Your task to perform on an android device: Search for sushi restaurants on Maps Image 0: 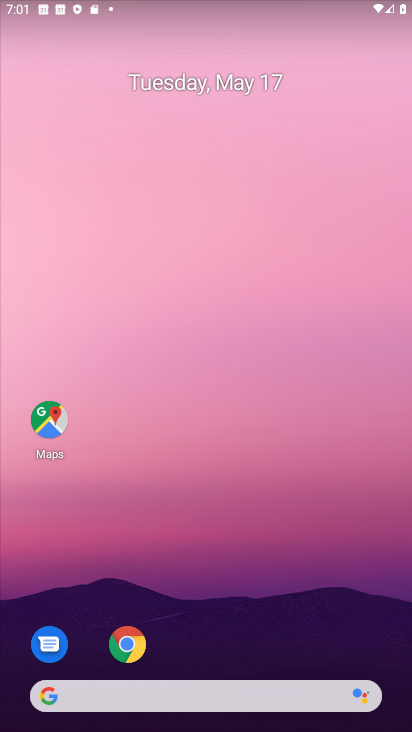
Step 0: drag from (390, 612) to (324, 67)
Your task to perform on an android device: Search for sushi restaurants on Maps Image 1: 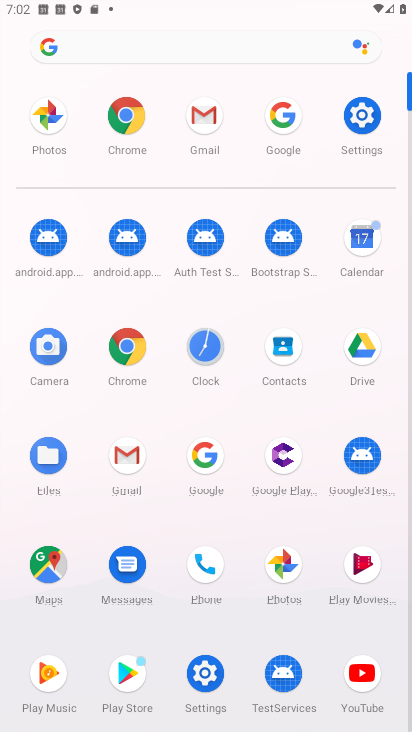
Step 1: click (41, 559)
Your task to perform on an android device: Search for sushi restaurants on Maps Image 2: 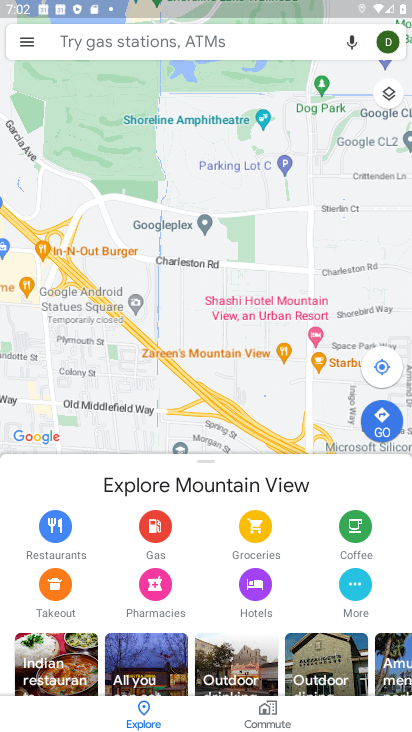
Step 2: click (131, 41)
Your task to perform on an android device: Search for sushi restaurants on Maps Image 3: 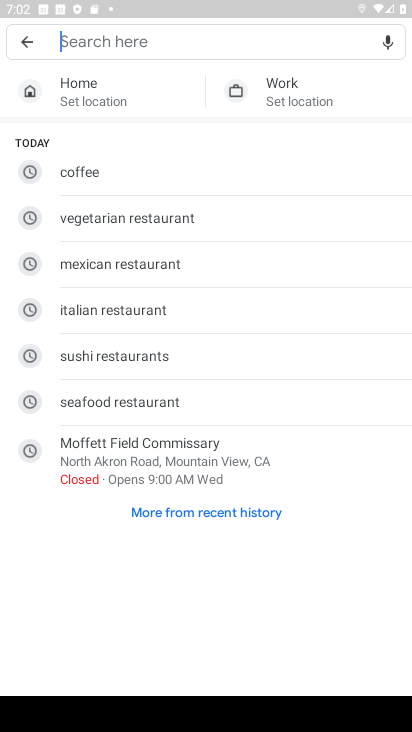
Step 3: click (141, 359)
Your task to perform on an android device: Search for sushi restaurants on Maps Image 4: 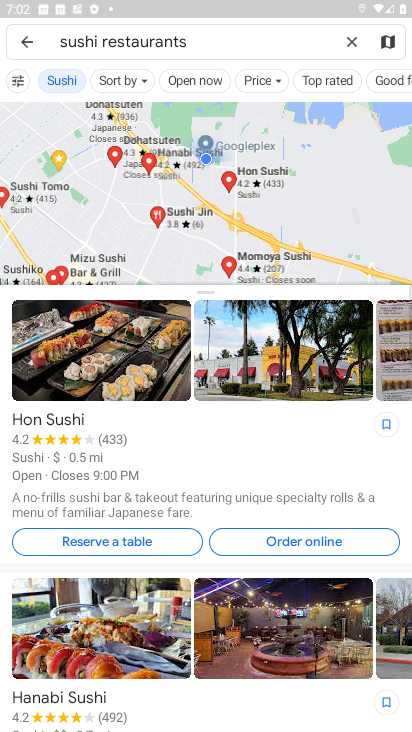
Step 4: task complete